Your task to perform on an android device: Open Google Maps Image 0: 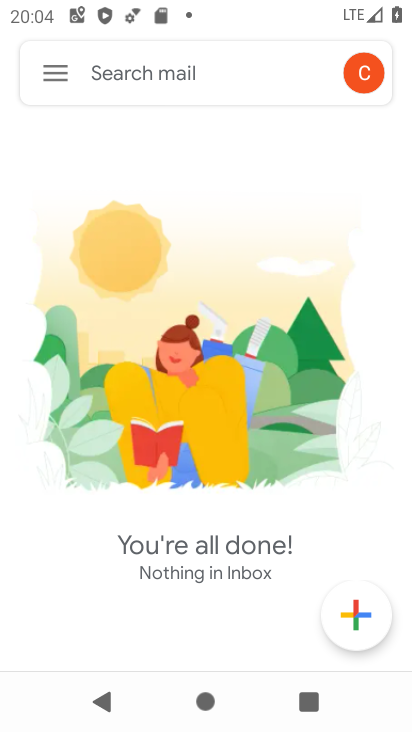
Step 0: press home button
Your task to perform on an android device: Open Google Maps Image 1: 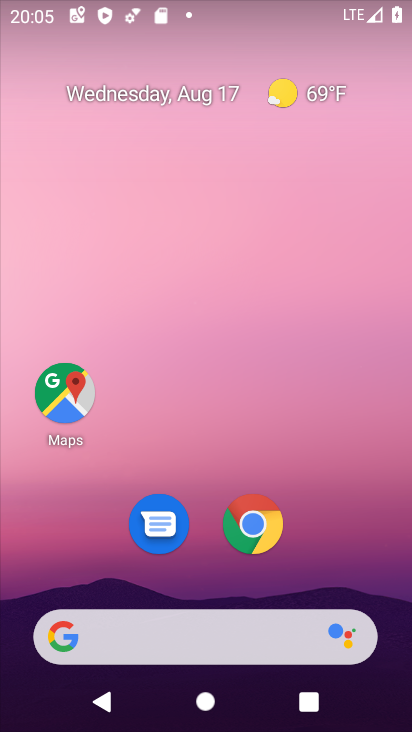
Step 1: click (58, 394)
Your task to perform on an android device: Open Google Maps Image 2: 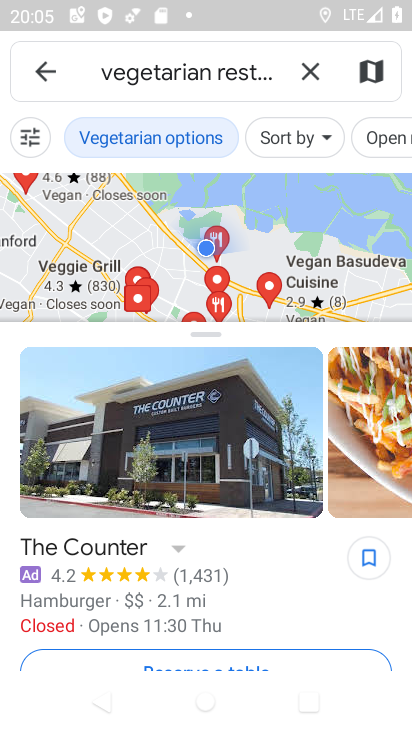
Step 2: task complete